Your task to perform on an android device: Open Chrome and go to the settings page Image 0: 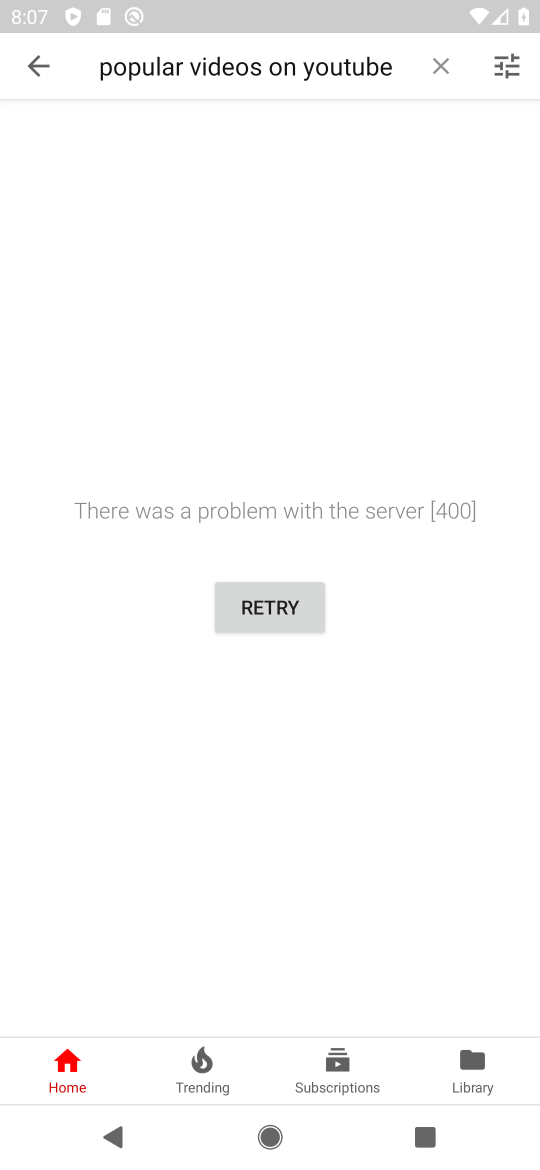
Step 0: press home button
Your task to perform on an android device: Open Chrome and go to the settings page Image 1: 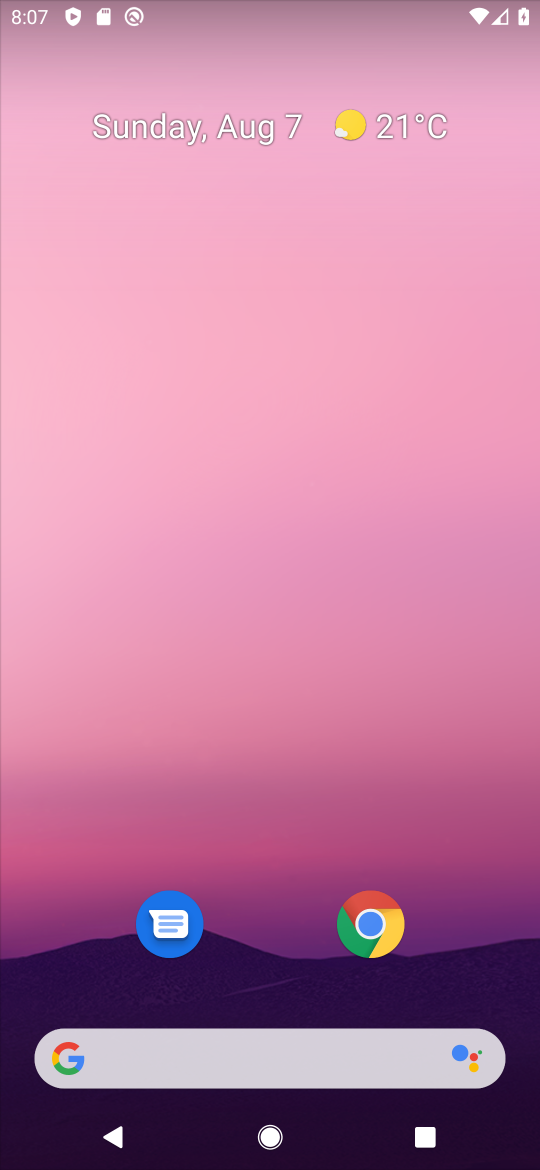
Step 1: click (377, 913)
Your task to perform on an android device: Open Chrome and go to the settings page Image 2: 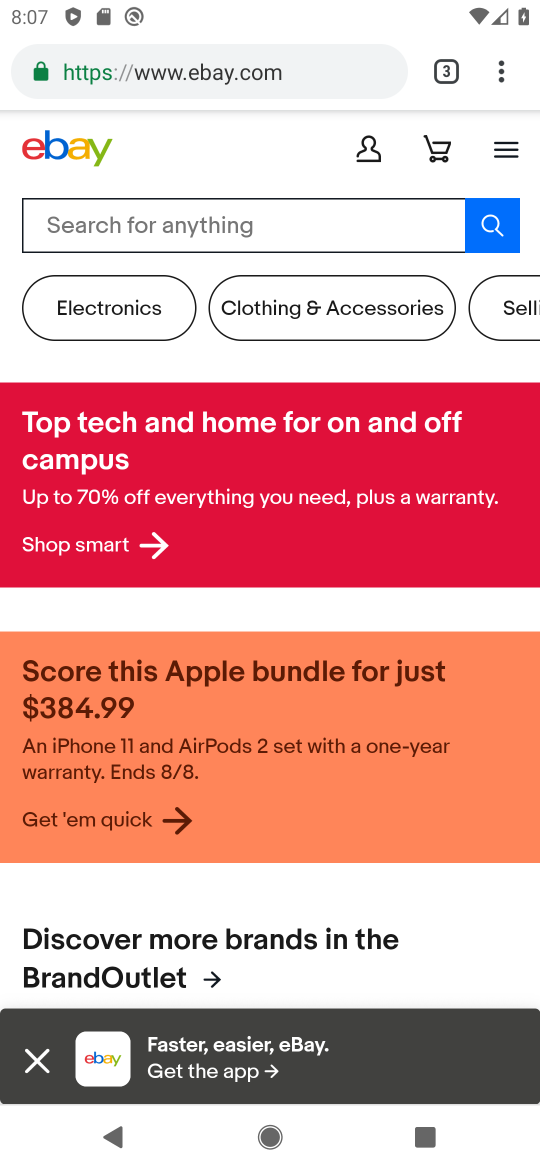
Step 2: click (497, 65)
Your task to perform on an android device: Open Chrome and go to the settings page Image 3: 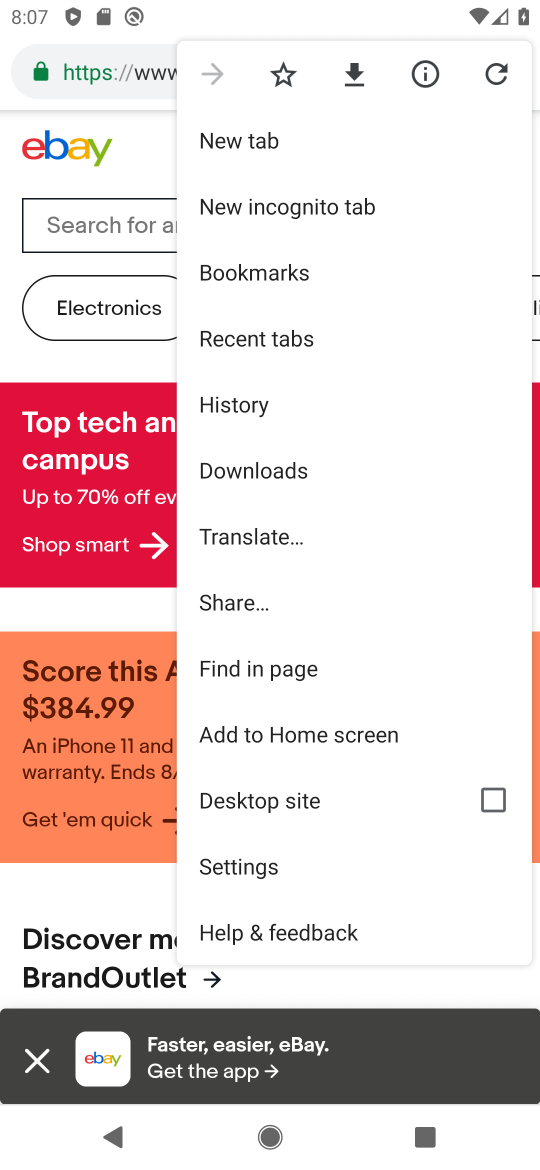
Step 3: click (266, 867)
Your task to perform on an android device: Open Chrome and go to the settings page Image 4: 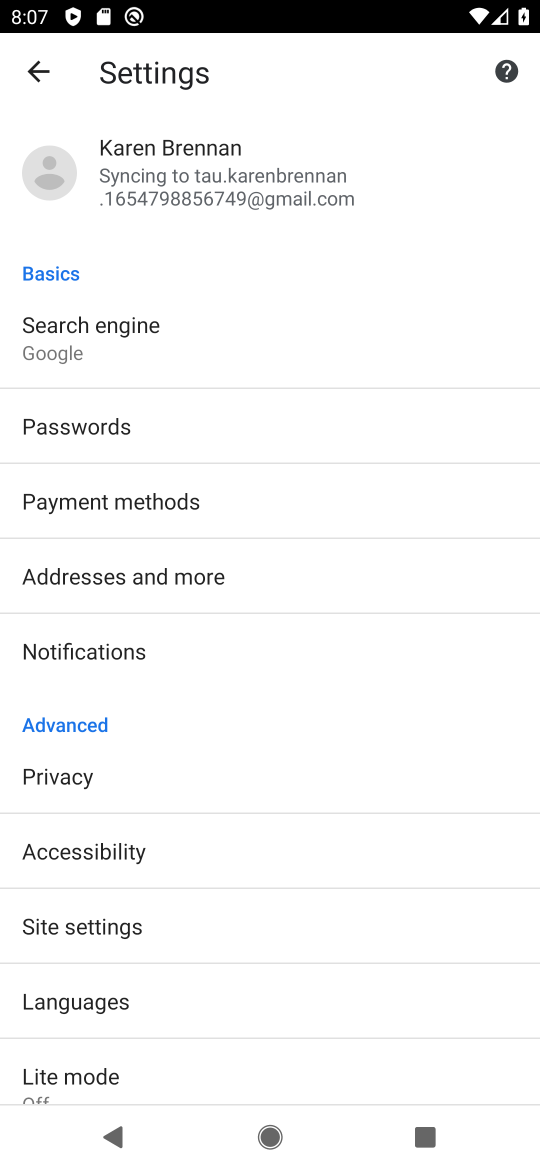
Step 4: task complete